Your task to perform on an android device: refresh tabs in the chrome app Image 0: 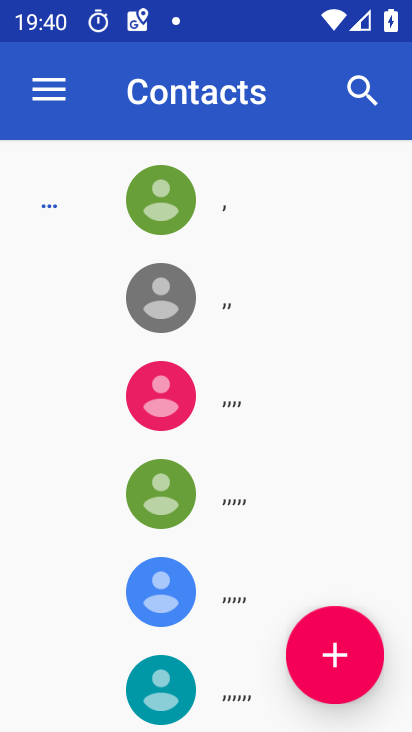
Step 0: press home button
Your task to perform on an android device: refresh tabs in the chrome app Image 1: 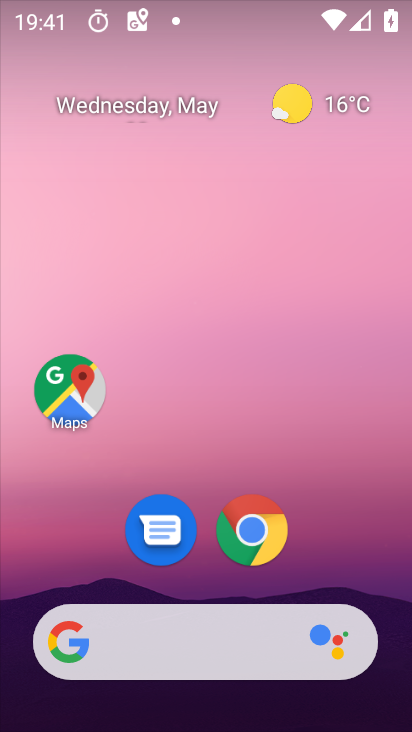
Step 1: click (251, 530)
Your task to perform on an android device: refresh tabs in the chrome app Image 2: 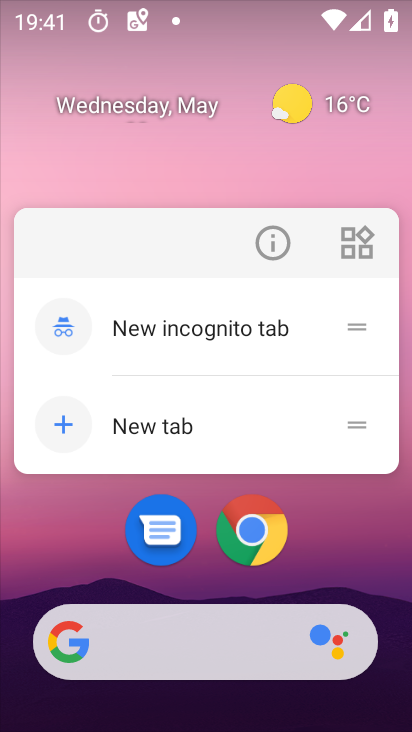
Step 2: click (251, 530)
Your task to perform on an android device: refresh tabs in the chrome app Image 3: 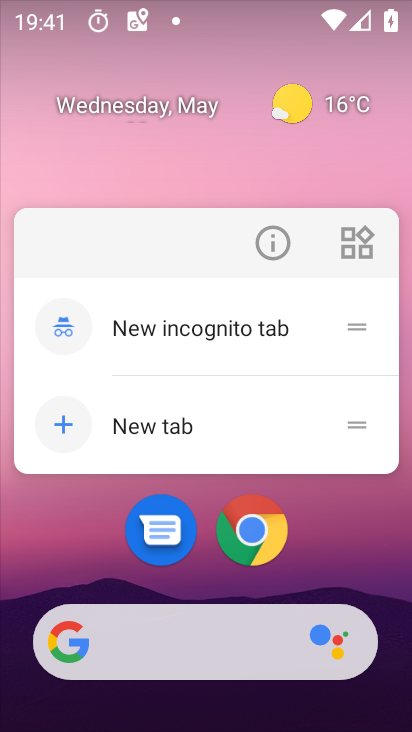
Step 3: click (261, 250)
Your task to perform on an android device: refresh tabs in the chrome app Image 4: 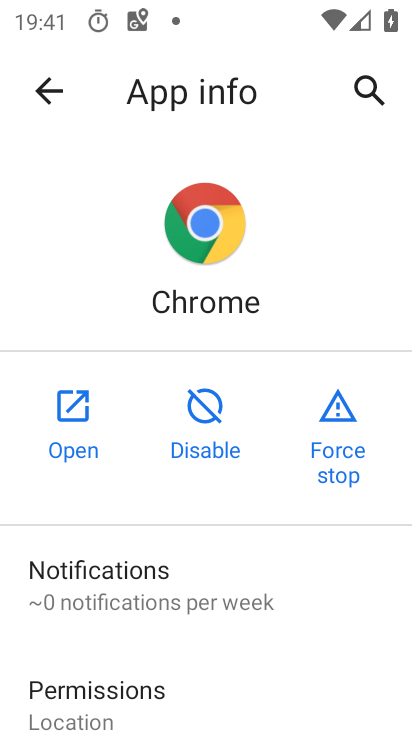
Step 4: click (81, 404)
Your task to perform on an android device: refresh tabs in the chrome app Image 5: 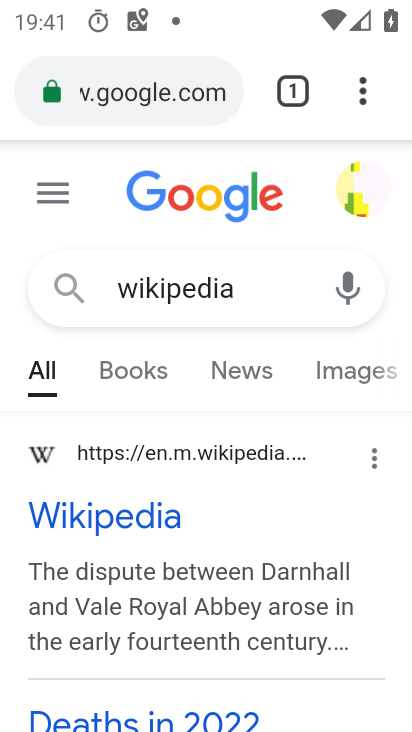
Step 5: click (364, 98)
Your task to perform on an android device: refresh tabs in the chrome app Image 6: 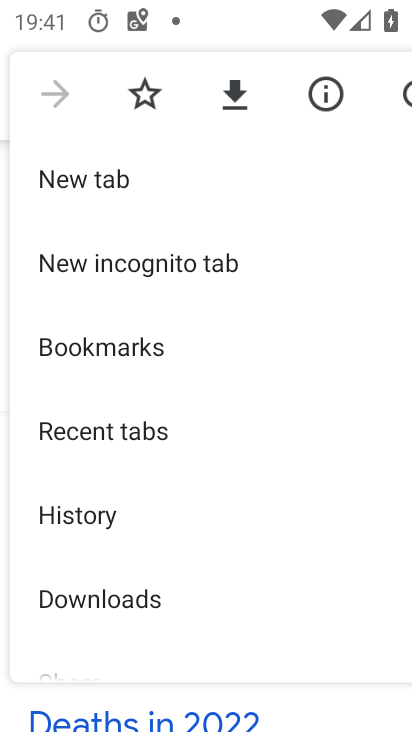
Step 6: click (405, 91)
Your task to perform on an android device: refresh tabs in the chrome app Image 7: 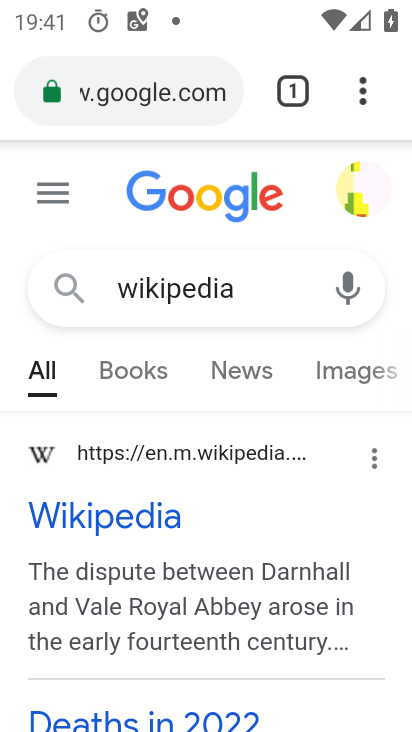
Step 7: task complete